Your task to perform on an android device: Search for "asus rog" on costco, select the first entry, and add it to the cart. Image 0: 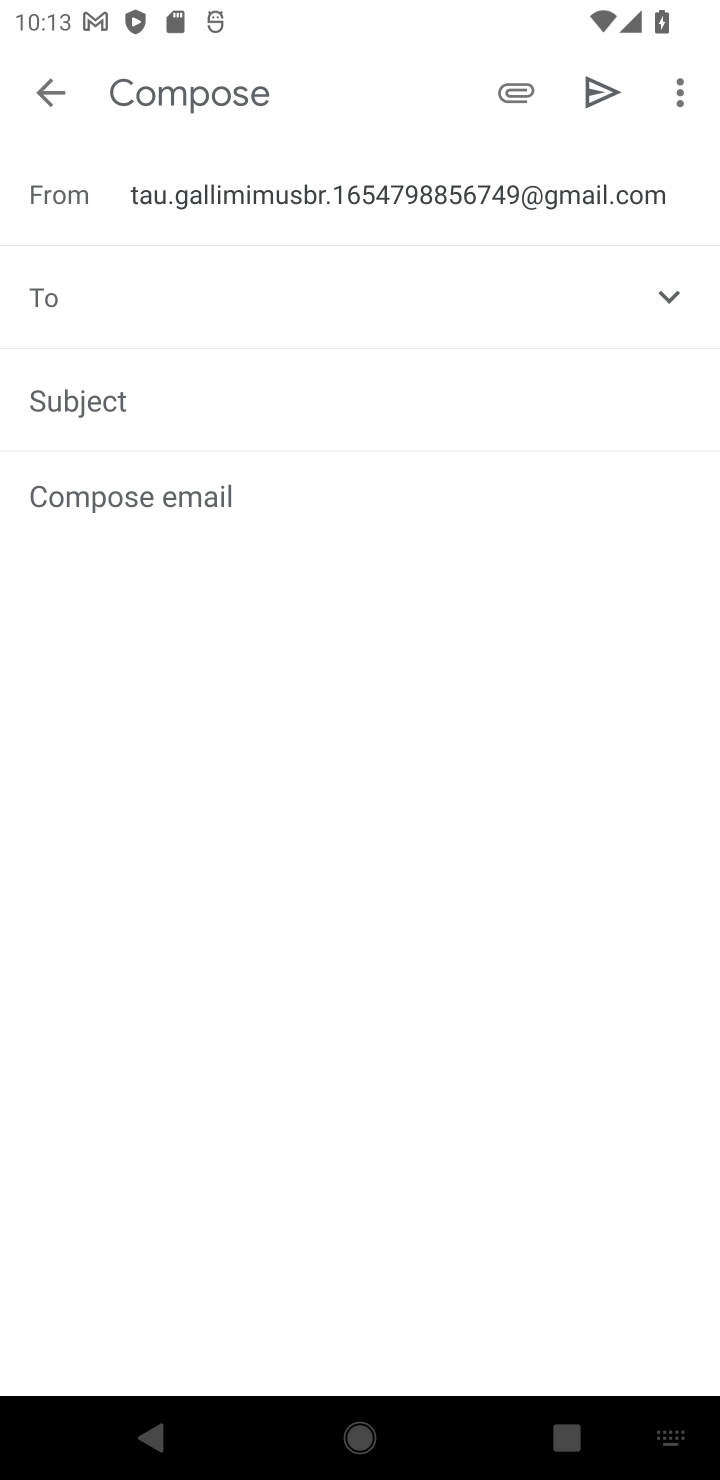
Step 0: press home button
Your task to perform on an android device: Search for "asus rog" on costco, select the first entry, and add it to the cart. Image 1: 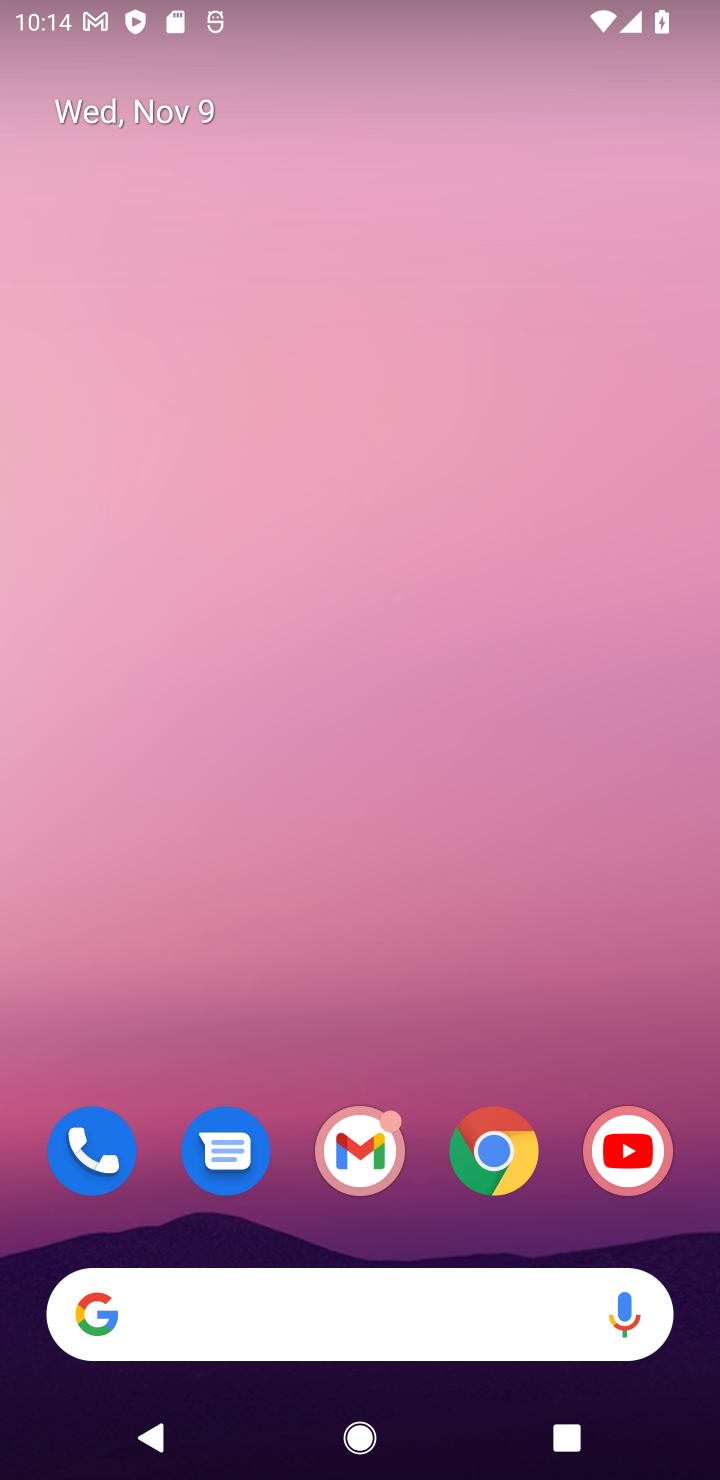
Step 1: click (501, 1147)
Your task to perform on an android device: Search for "asus rog" on costco, select the first entry, and add it to the cart. Image 2: 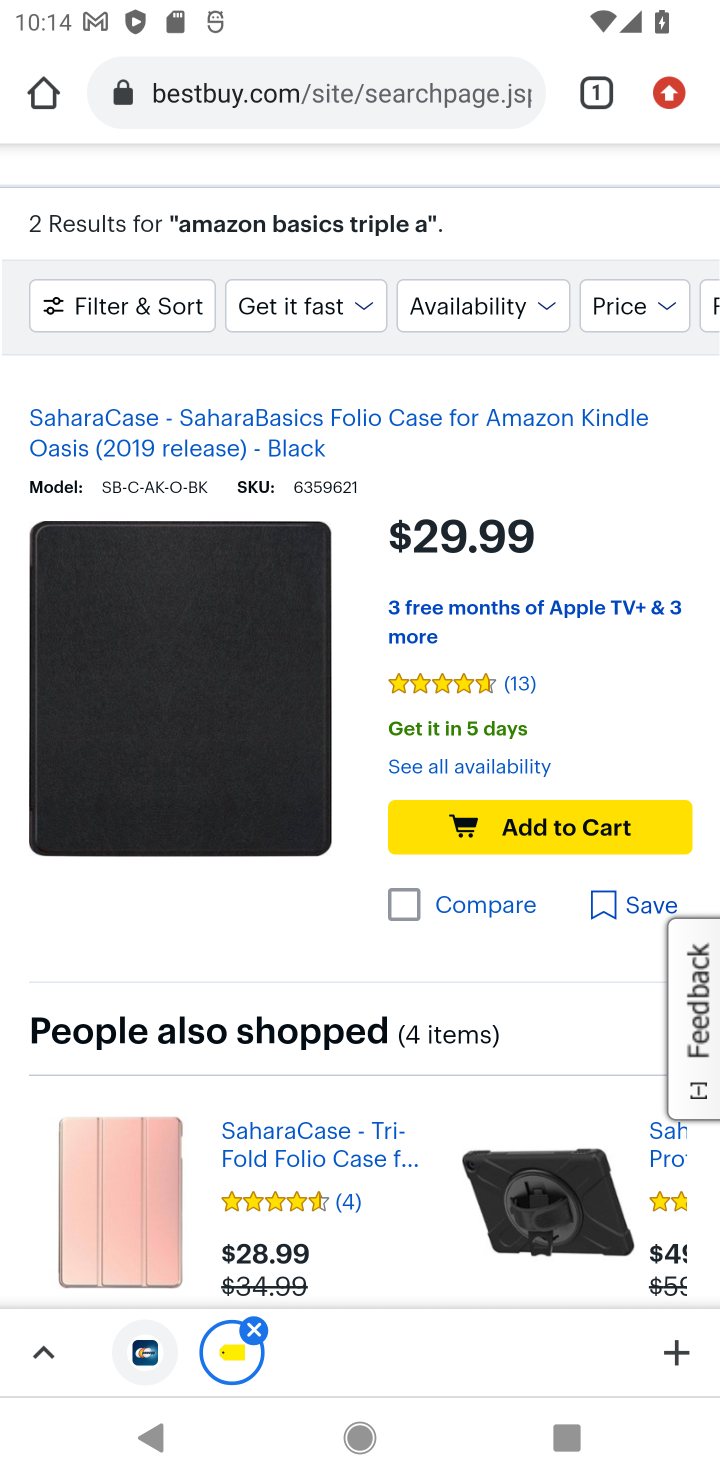
Step 2: click (331, 103)
Your task to perform on an android device: Search for "asus rog" on costco, select the first entry, and add it to the cart. Image 3: 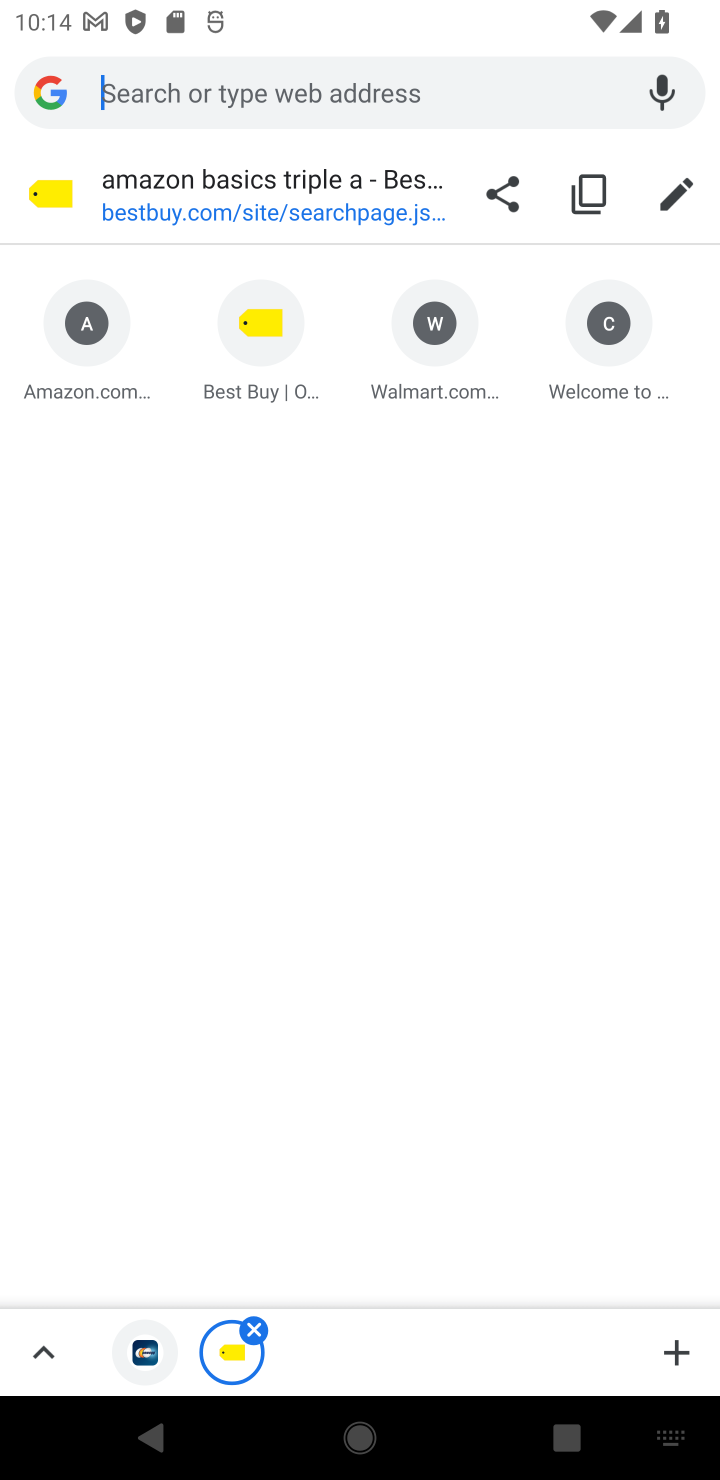
Step 3: press enter
Your task to perform on an android device: Search for "asus rog" on costco, select the first entry, and add it to the cart. Image 4: 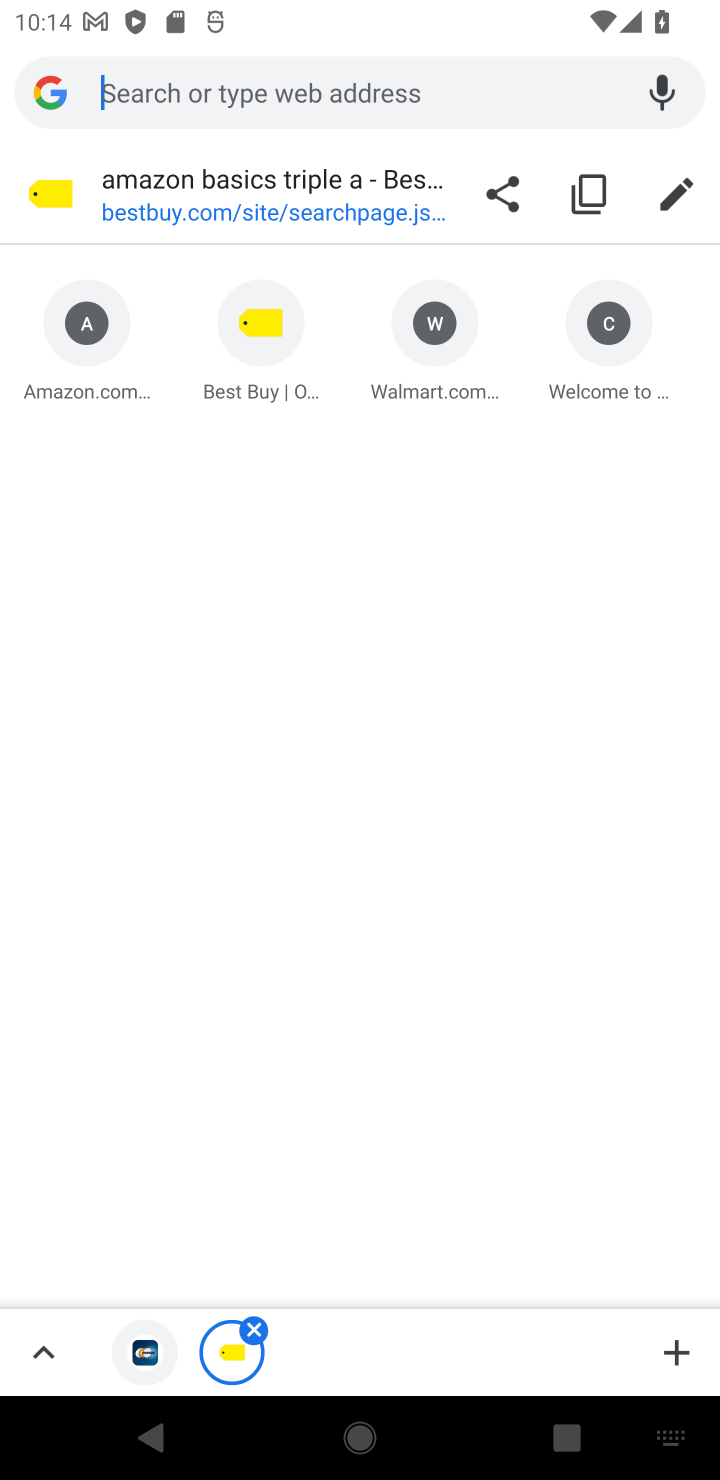
Step 4: type "costco"
Your task to perform on an android device: Search for "asus rog" on costco, select the first entry, and add it to the cart. Image 5: 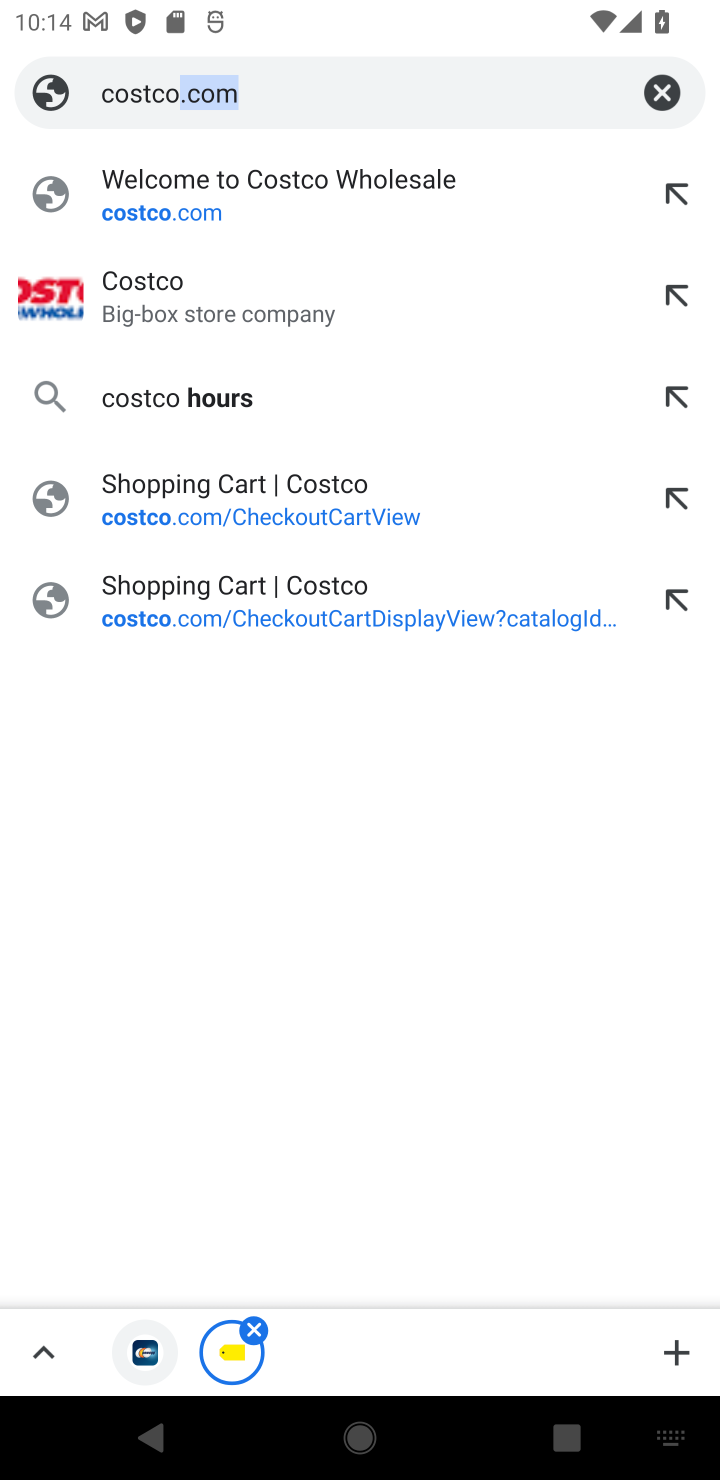
Step 5: click (463, 79)
Your task to perform on an android device: Search for "asus rog" on costco, select the first entry, and add it to the cart. Image 6: 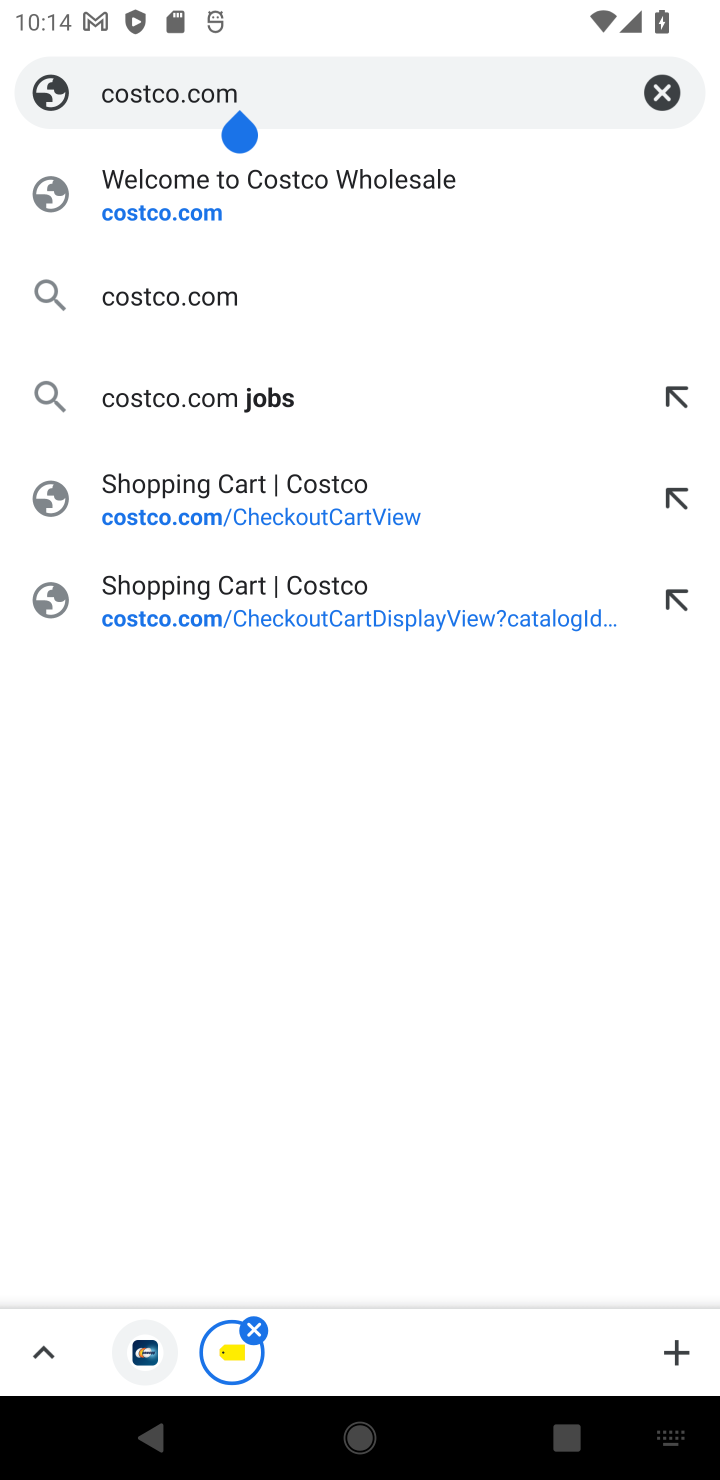
Step 6: click (177, 290)
Your task to perform on an android device: Search for "asus rog" on costco, select the first entry, and add it to the cart. Image 7: 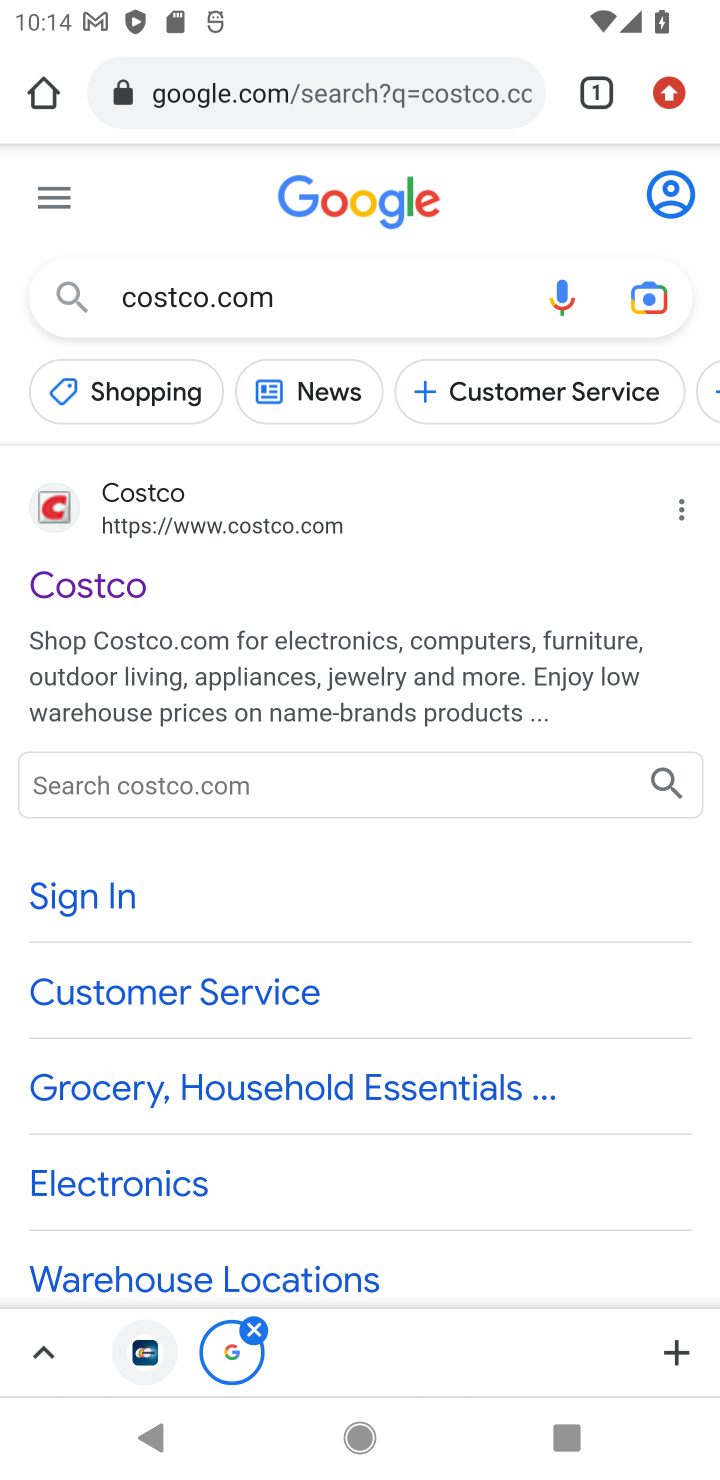
Step 7: click (231, 521)
Your task to perform on an android device: Search for "asus rog" on costco, select the first entry, and add it to the cart. Image 8: 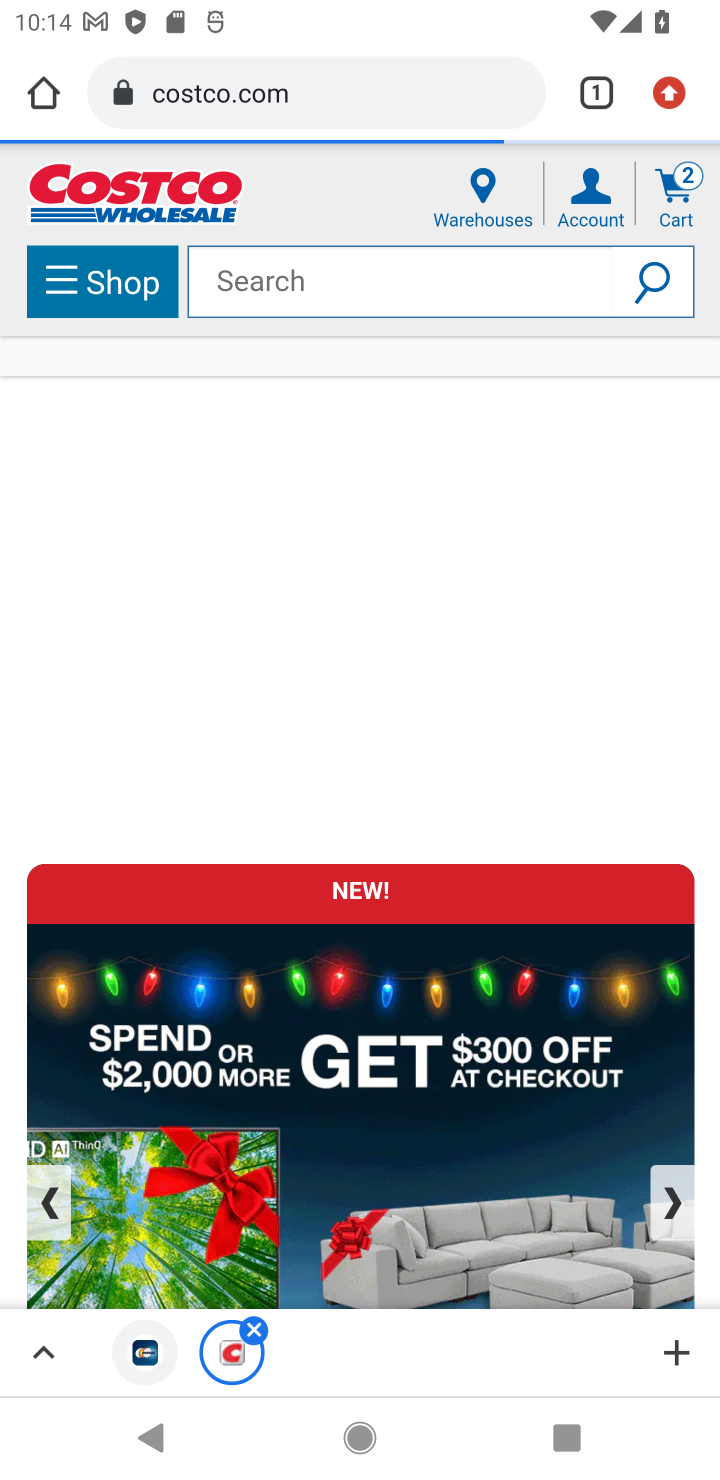
Step 8: click (334, 275)
Your task to perform on an android device: Search for "asus rog" on costco, select the first entry, and add it to the cart. Image 9: 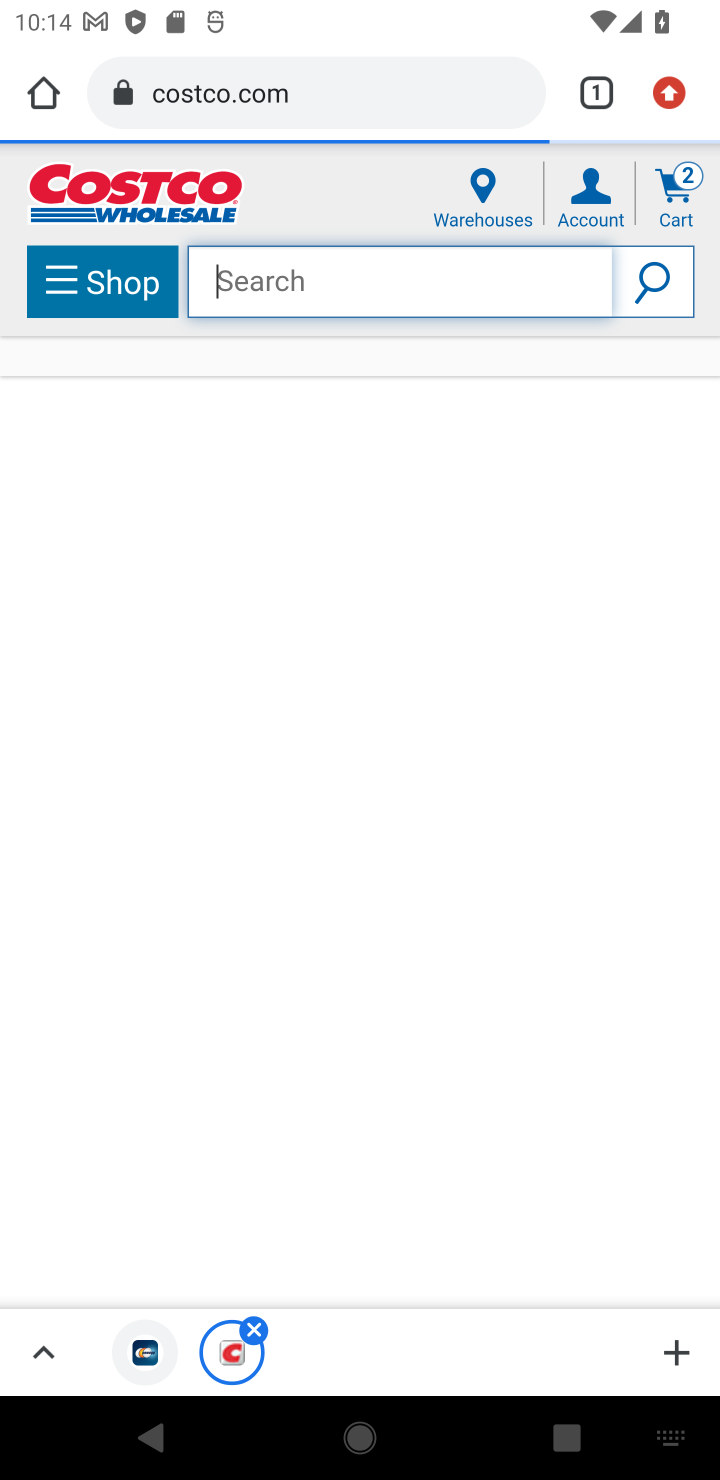
Step 9: press enter
Your task to perform on an android device: Search for "asus rog" on costco, select the first entry, and add it to the cart. Image 10: 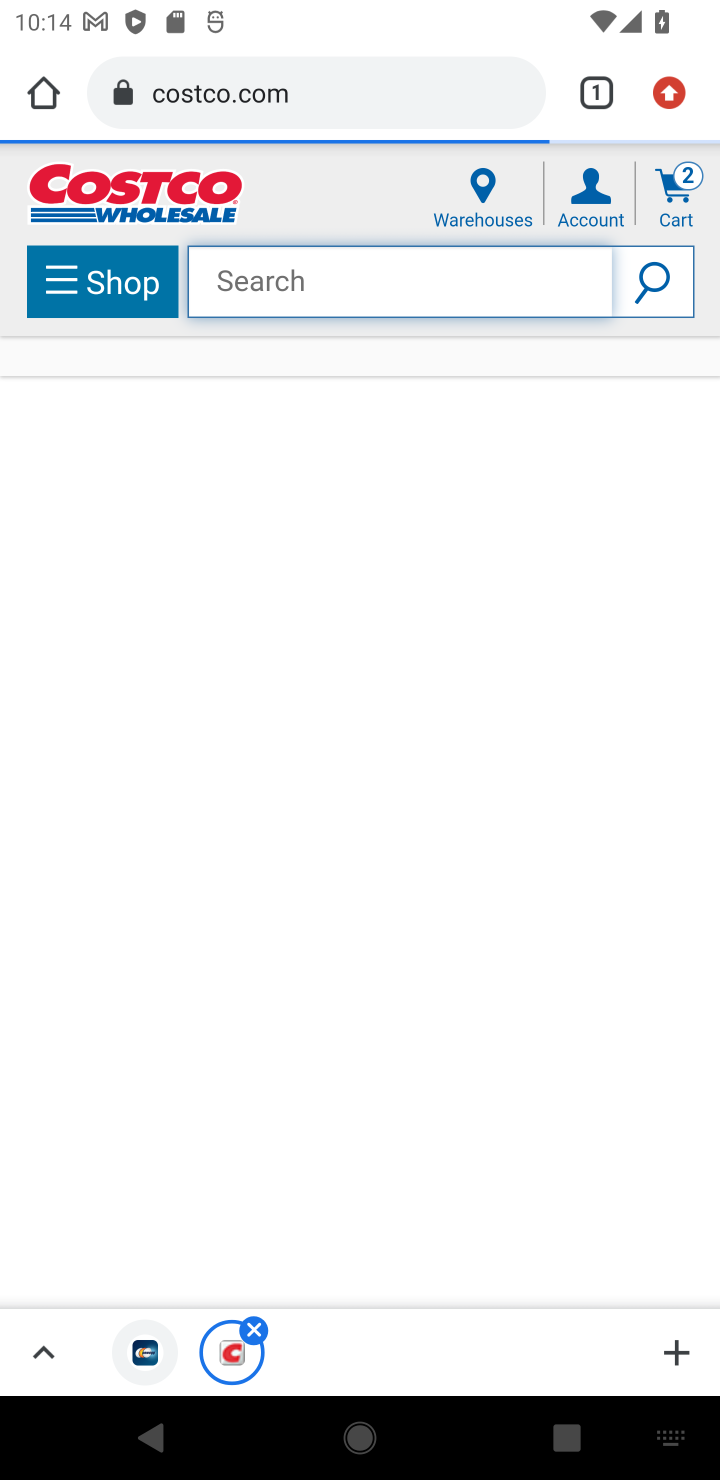
Step 10: type "asus rog"
Your task to perform on an android device: Search for "asus rog" on costco, select the first entry, and add it to the cart. Image 11: 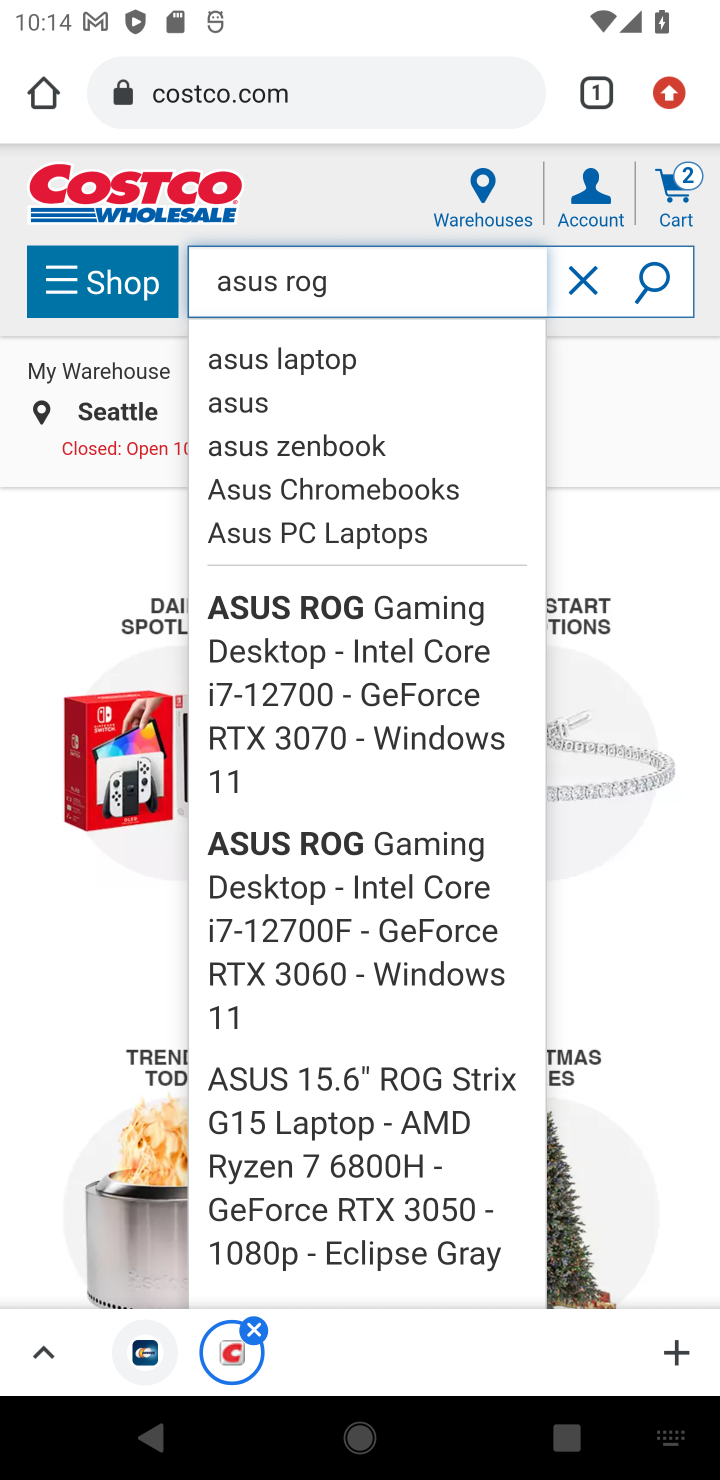
Step 11: click (617, 382)
Your task to perform on an android device: Search for "asus rog" on costco, select the first entry, and add it to the cart. Image 12: 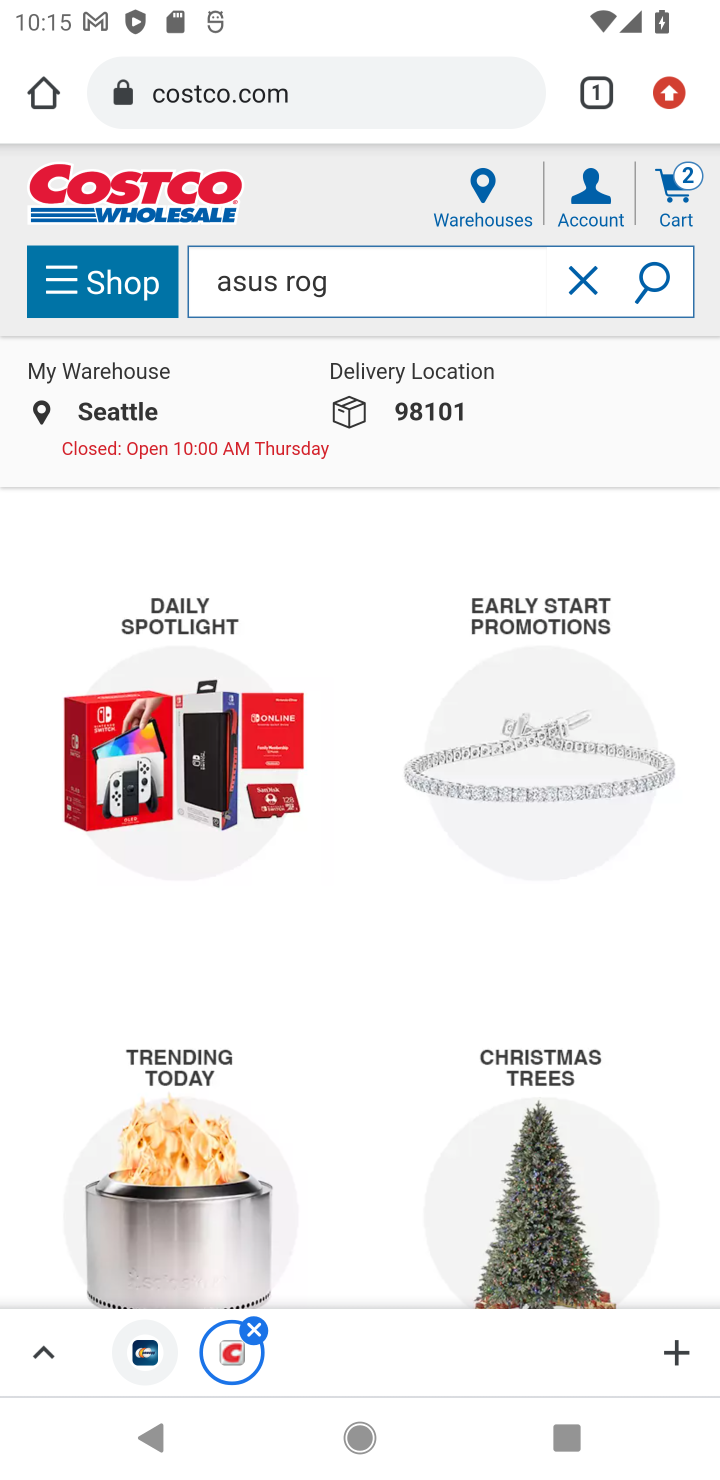
Step 12: click (456, 277)
Your task to perform on an android device: Search for "asus rog" on costco, select the first entry, and add it to the cart. Image 13: 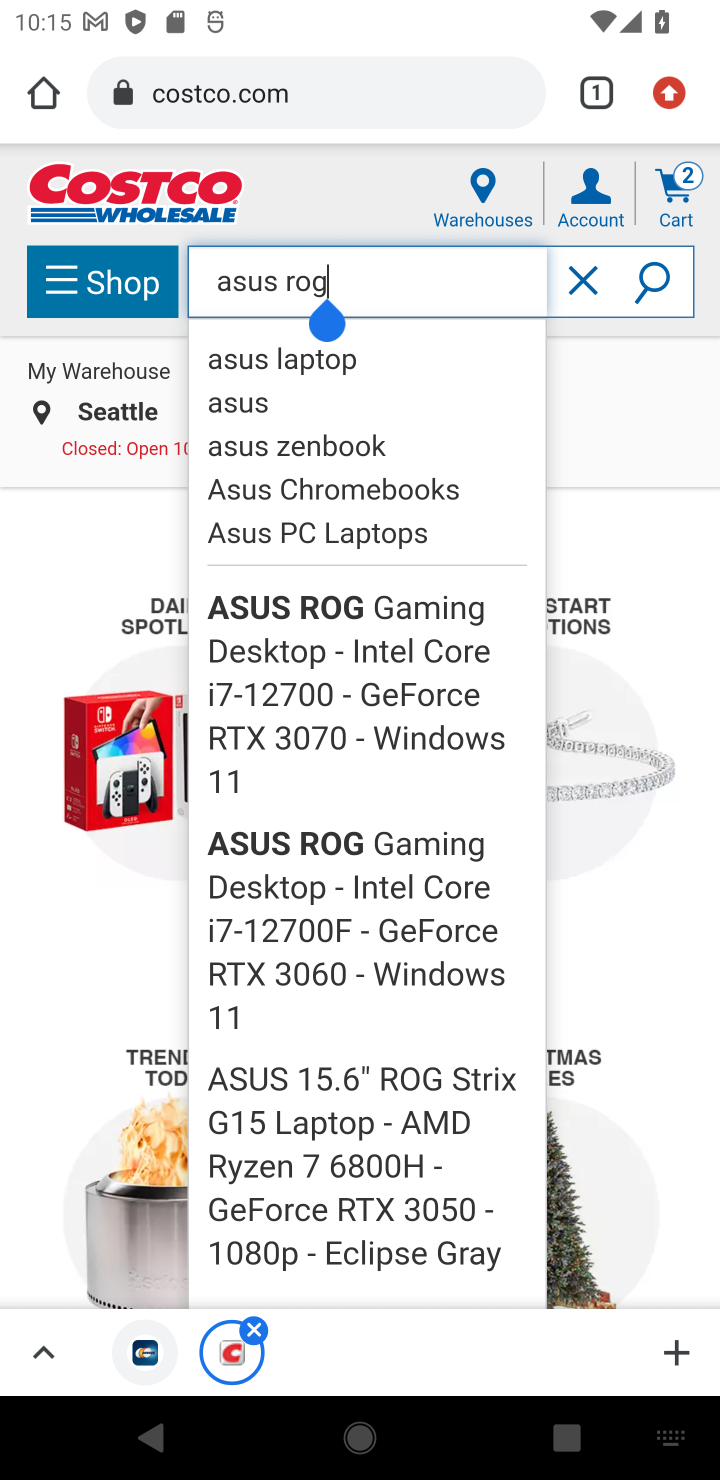
Step 13: click (642, 412)
Your task to perform on an android device: Search for "asus rog" on costco, select the first entry, and add it to the cart. Image 14: 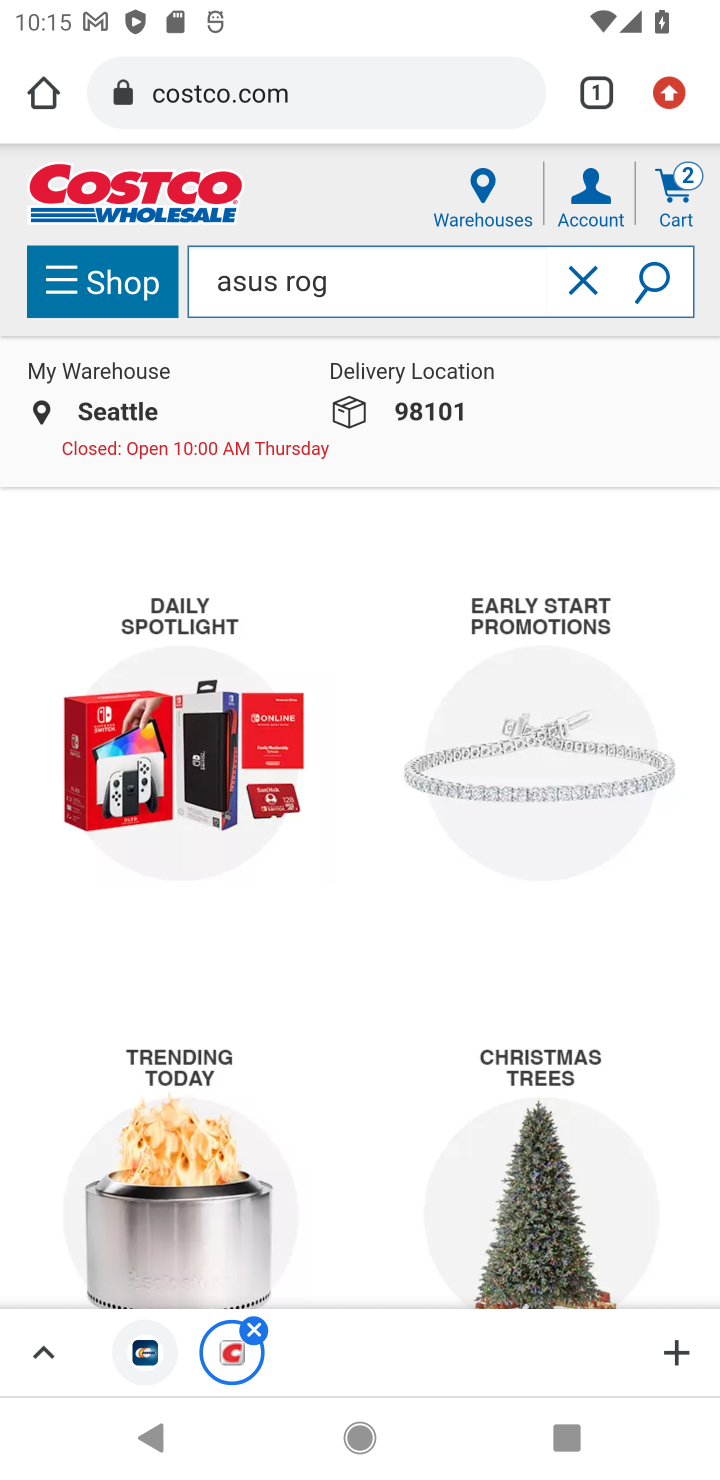
Step 14: task complete